Your task to perform on an android device: toggle improve location accuracy Image 0: 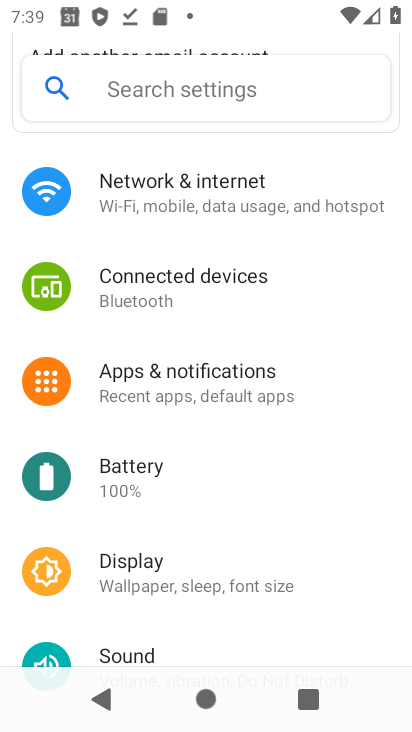
Step 0: press home button
Your task to perform on an android device: toggle improve location accuracy Image 1: 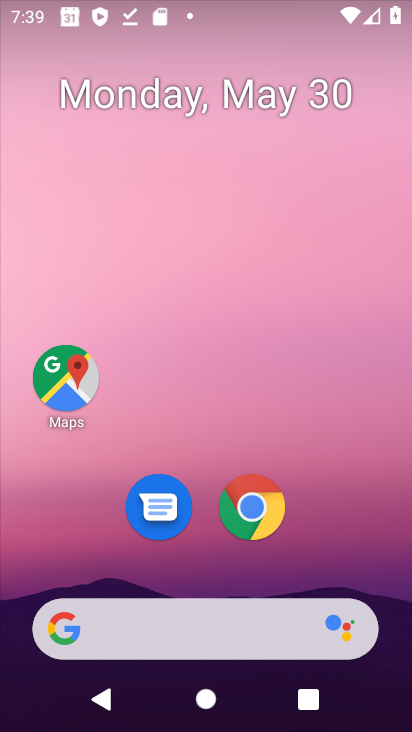
Step 1: drag from (354, 554) to (332, 142)
Your task to perform on an android device: toggle improve location accuracy Image 2: 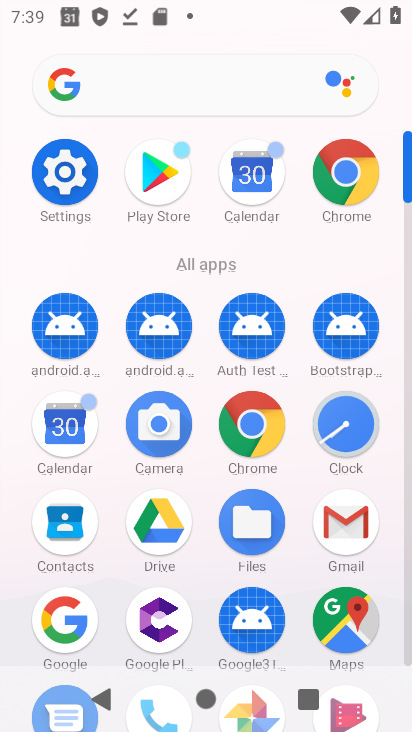
Step 2: click (50, 156)
Your task to perform on an android device: toggle improve location accuracy Image 3: 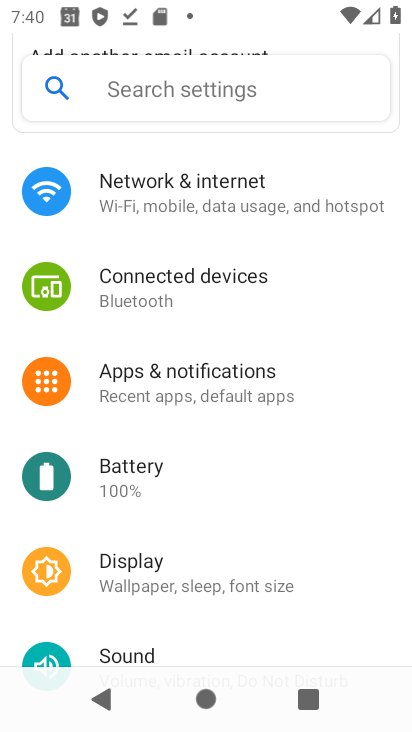
Step 3: drag from (275, 176) to (277, 444)
Your task to perform on an android device: toggle improve location accuracy Image 4: 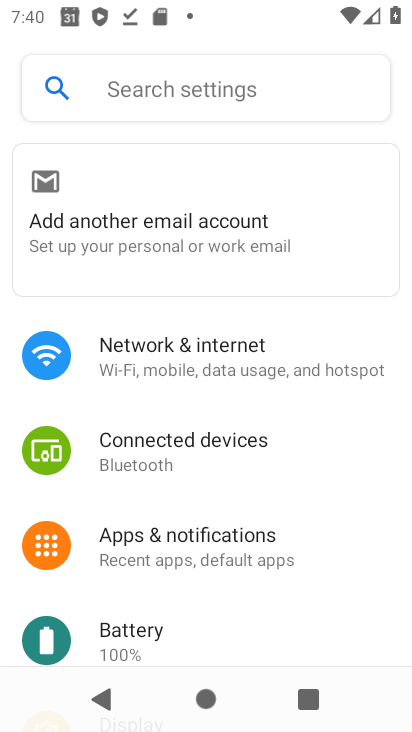
Step 4: drag from (313, 568) to (289, 260)
Your task to perform on an android device: toggle improve location accuracy Image 5: 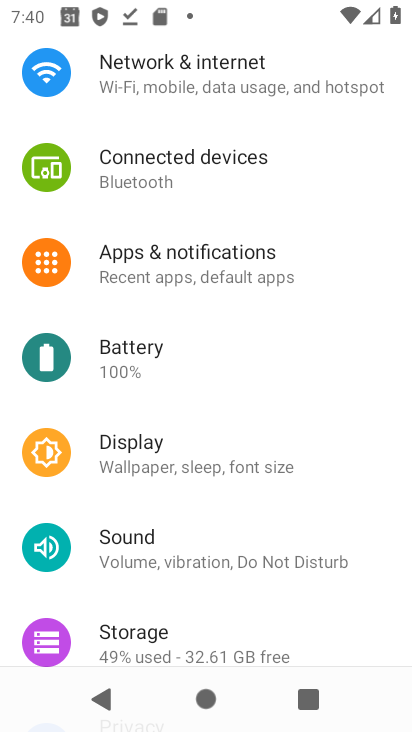
Step 5: drag from (286, 545) to (277, 184)
Your task to perform on an android device: toggle improve location accuracy Image 6: 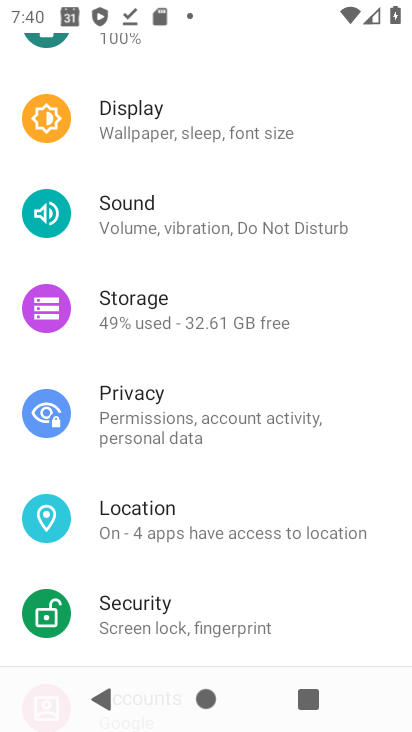
Step 6: drag from (196, 552) to (227, 224)
Your task to perform on an android device: toggle improve location accuracy Image 7: 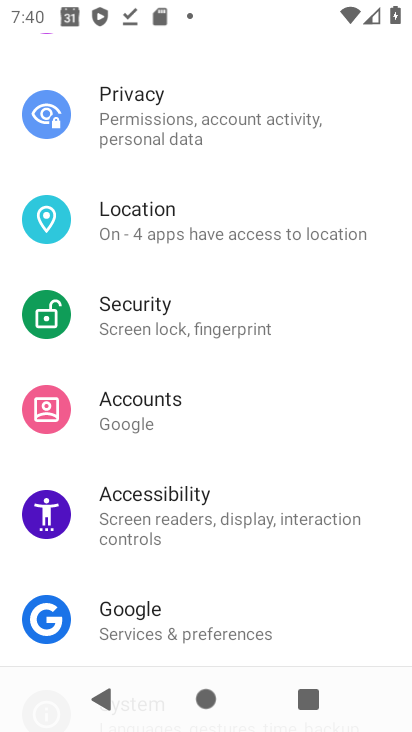
Step 7: drag from (227, 559) to (243, 244)
Your task to perform on an android device: toggle improve location accuracy Image 8: 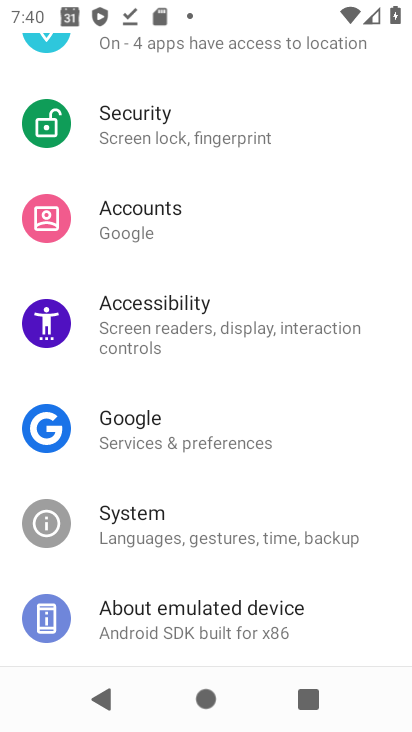
Step 8: drag from (233, 123) to (255, 276)
Your task to perform on an android device: toggle improve location accuracy Image 9: 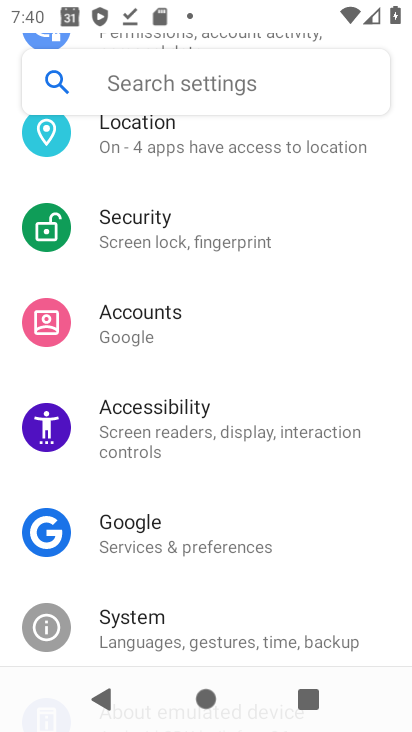
Step 9: click (243, 154)
Your task to perform on an android device: toggle improve location accuracy Image 10: 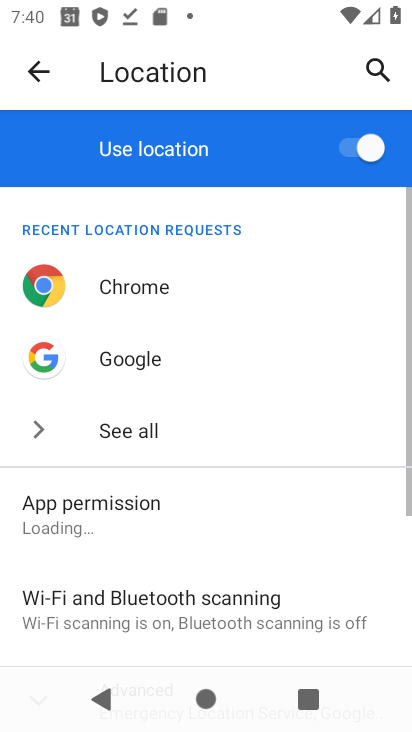
Step 10: drag from (237, 498) to (230, 226)
Your task to perform on an android device: toggle improve location accuracy Image 11: 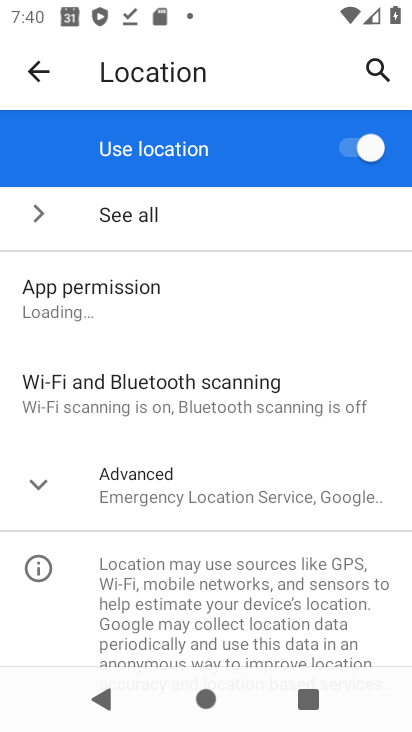
Step 11: click (225, 527)
Your task to perform on an android device: toggle improve location accuracy Image 12: 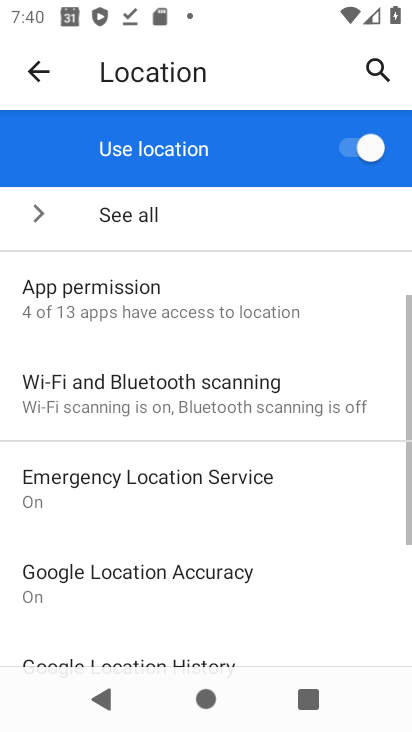
Step 12: drag from (206, 575) to (233, 308)
Your task to perform on an android device: toggle improve location accuracy Image 13: 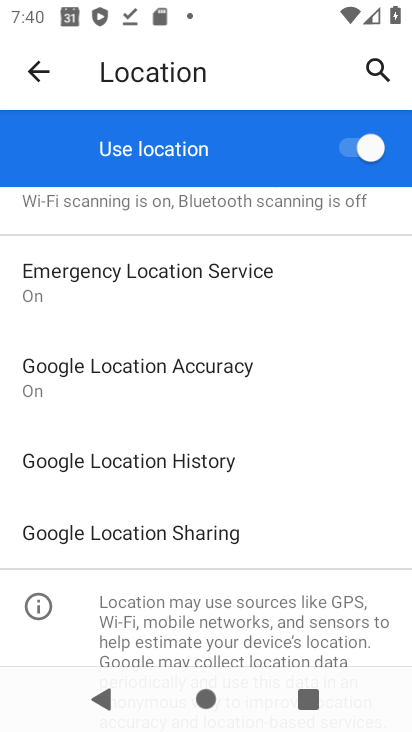
Step 13: click (164, 367)
Your task to perform on an android device: toggle improve location accuracy Image 14: 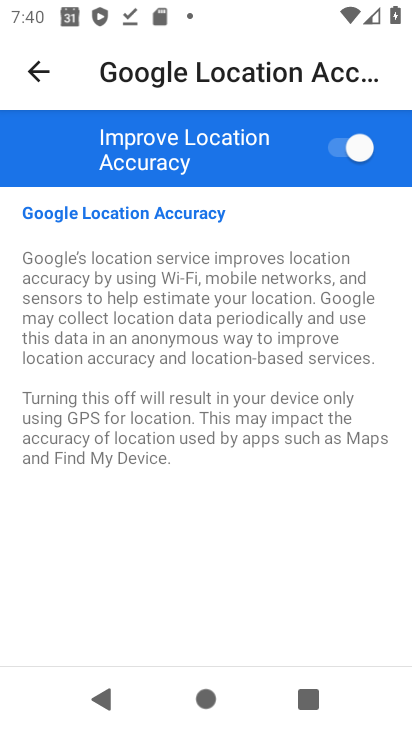
Step 14: click (329, 154)
Your task to perform on an android device: toggle improve location accuracy Image 15: 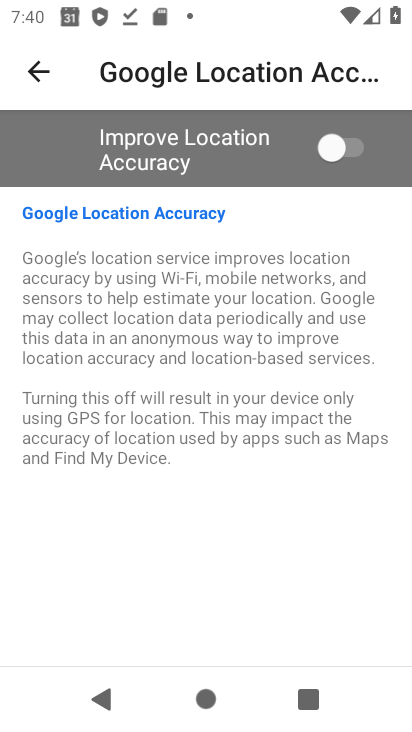
Step 15: click (328, 155)
Your task to perform on an android device: toggle improve location accuracy Image 16: 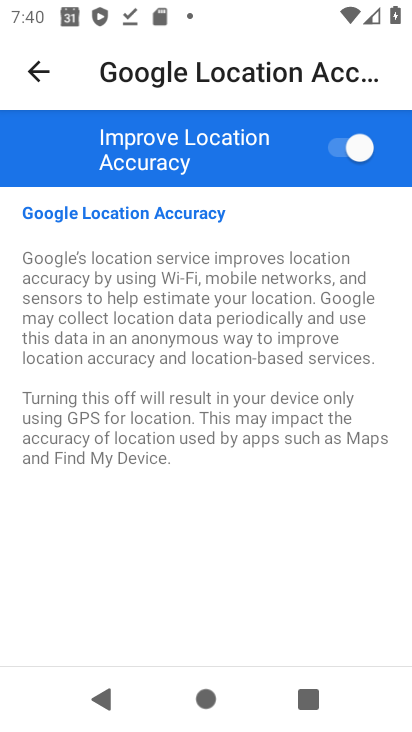
Step 16: task complete